Your task to perform on an android device: turn off location history Image 0: 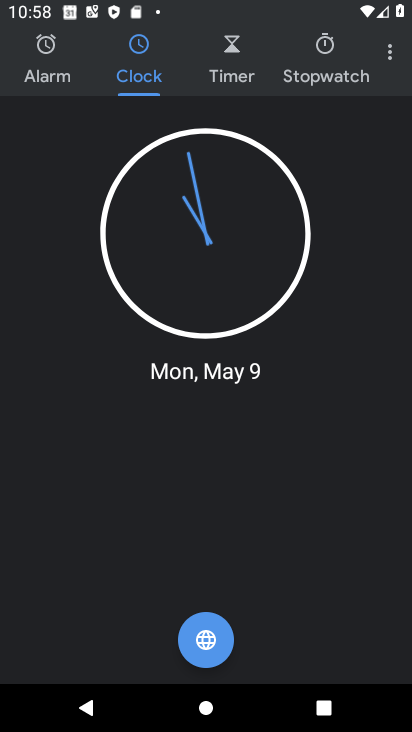
Step 0: press home button
Your task to perform on an android device: turn off location history Image 1: 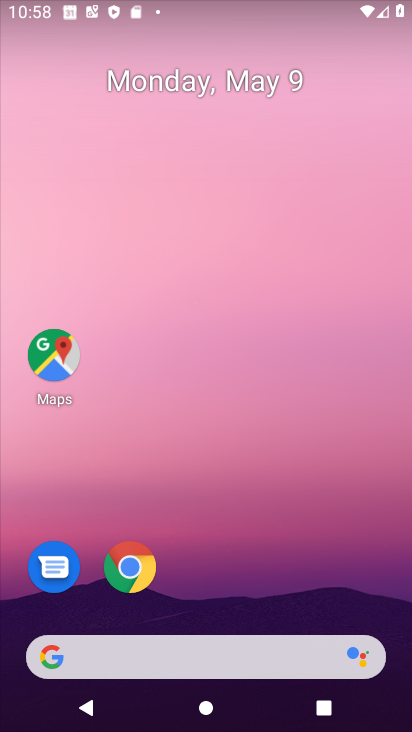
Step 1: drag from (177, 643) to (107, 62)
Your task to perform on an android device: turn off location history Image 2: 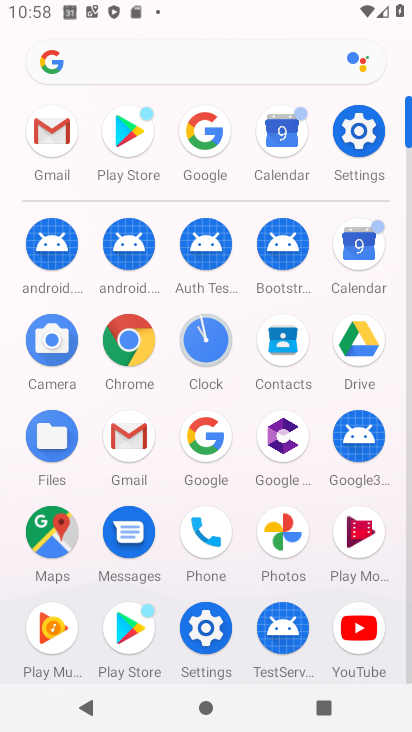
Step 2: click (336, 127)
Your task to perform on an android device: turn off location history Image 3: 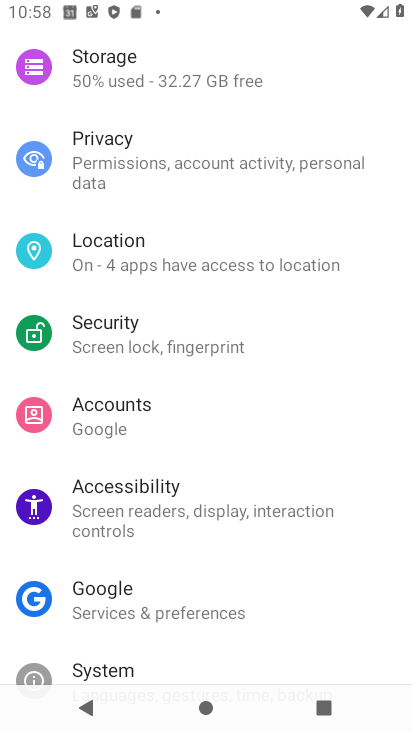
Step 3: click (147, 268)
Your task to perform on an android device: turn off location history Image 4: 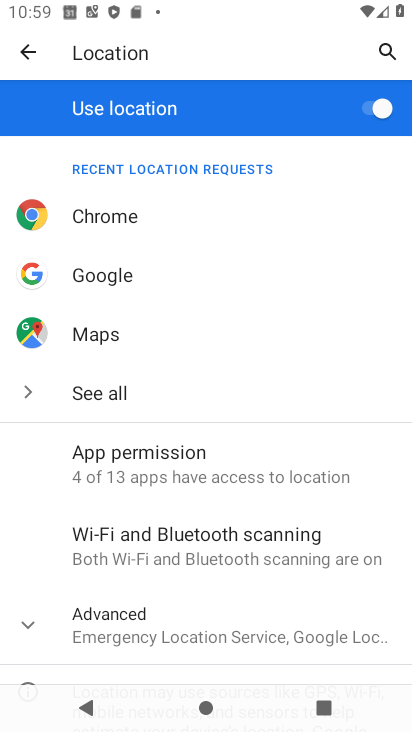
Step 4: drag from (141, 606) to (86, 173)
Your task to perform on an android device: turn off location history Image 5: 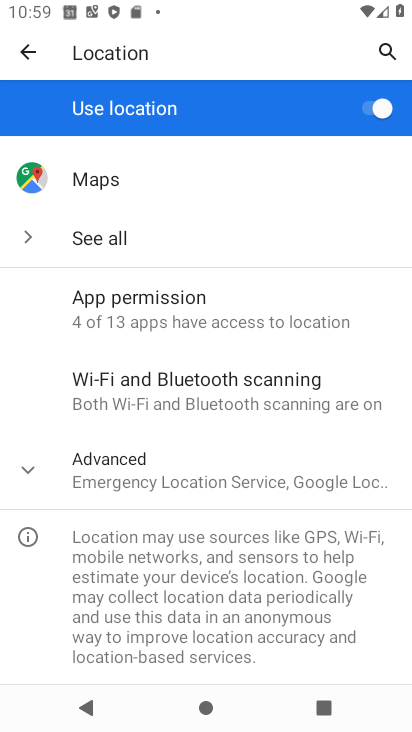
Step 5: click (143, 475)
Your task to perform on an android device: turn off location history Image 6: 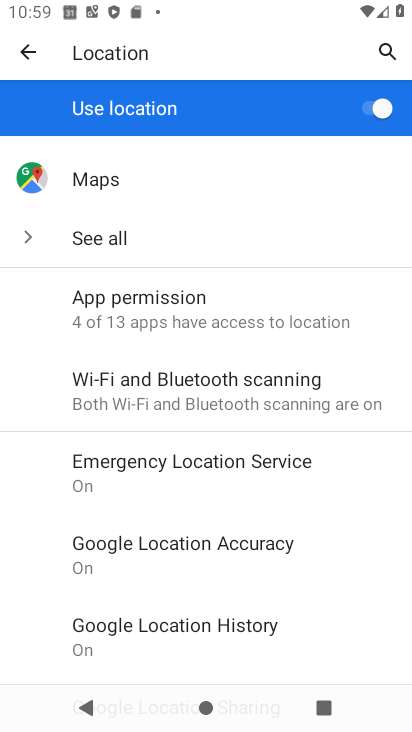
Step 6: click (182, 631)
Your task to perform on an android device: turn off location history Image 7: 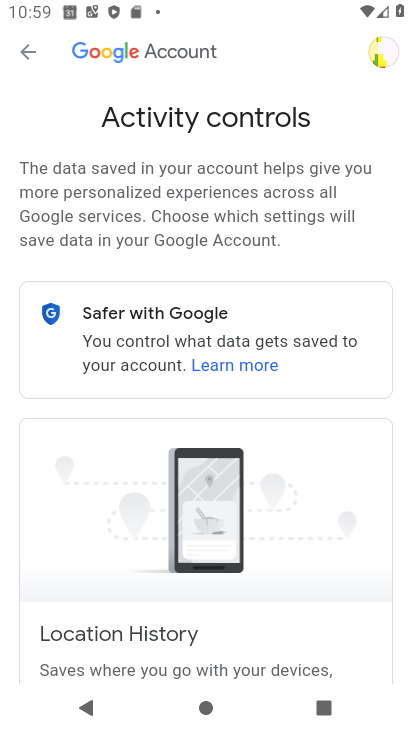
Step 7: task complete